Your task to perform on an android device: change the clock display to digital Image 0: 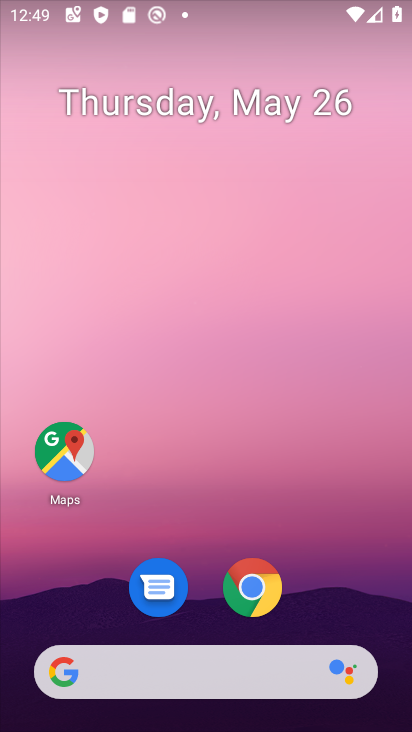
Step 0: drag from (374, 613) to (371, 239)
Your task to perform on an android device: change the clock display to digital Image 1: 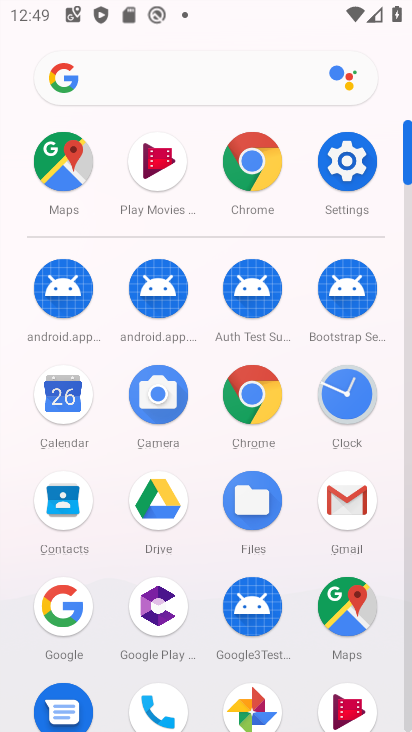
Step 1: click (350, 412)
Your task to perform on an android device: change the clock display to digital Image 2: 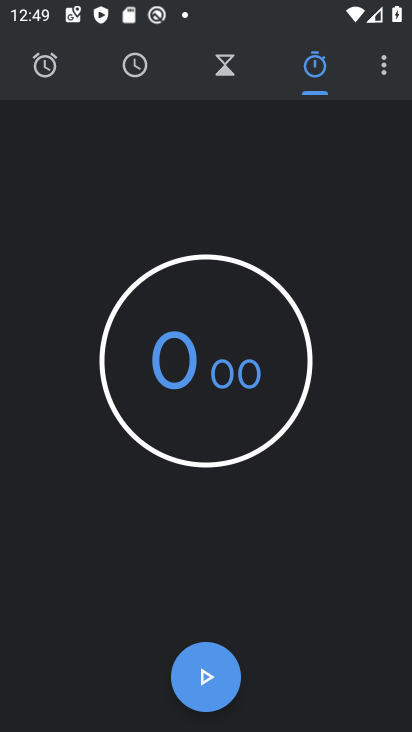
Step 2: click (388, 74)
Your task to perform on an android device: change the clock display to digital Image 3: 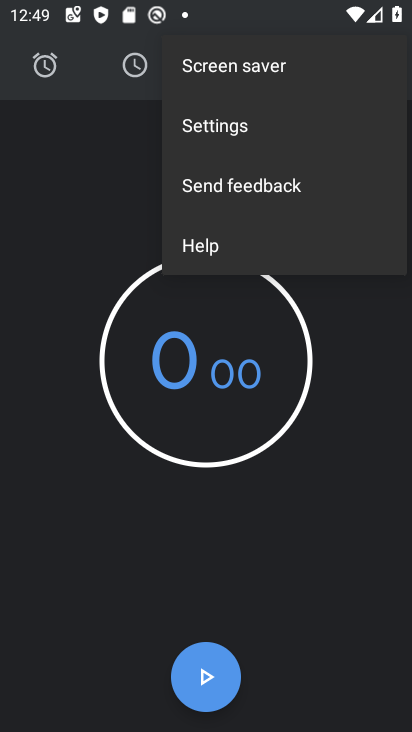
Step 3: click (259, 141)
Your task to perform on an android device: change the clock display to digital Image 4: 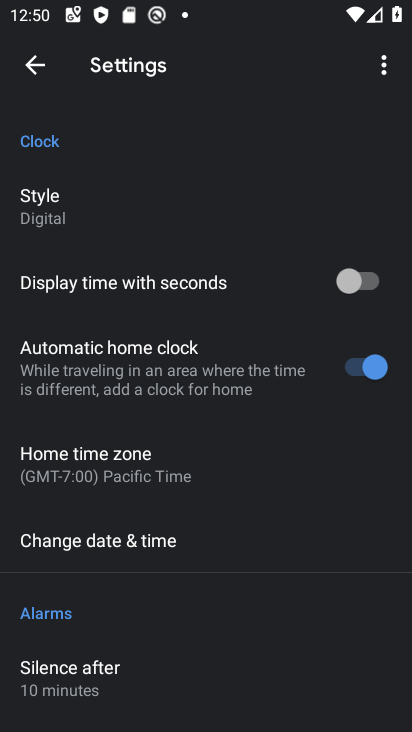
Step 4: task complete